Your task to perform on an android device: Open network settings Image 0: 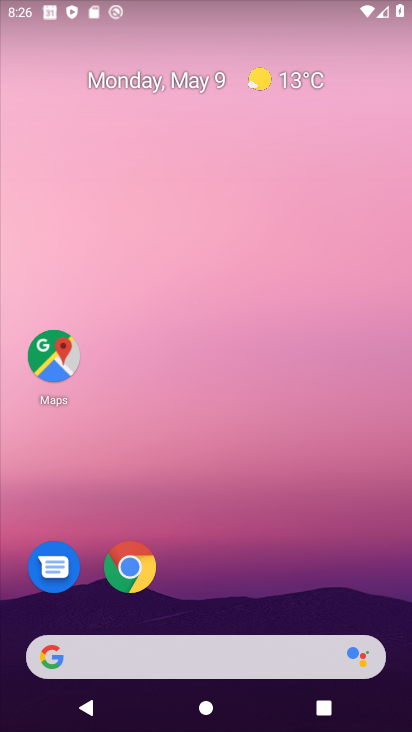
Step 0: drag from (290, 518) to (246, 33)
Your task to perform on an android device: Open network settings Image 1: 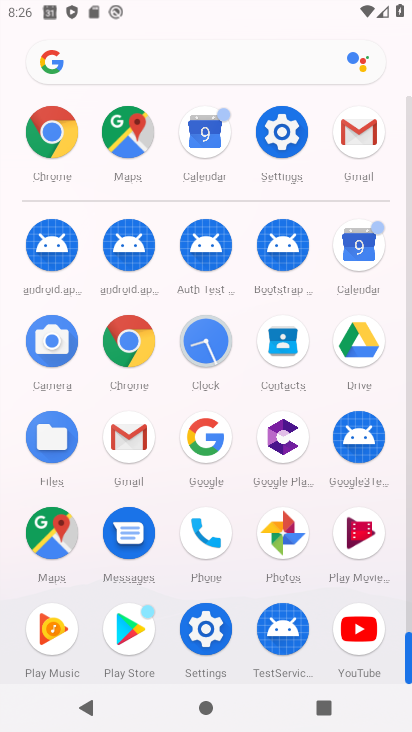
Step 1: click (275, 116)
Your task to perform on an android device: Open network settings Image 2: 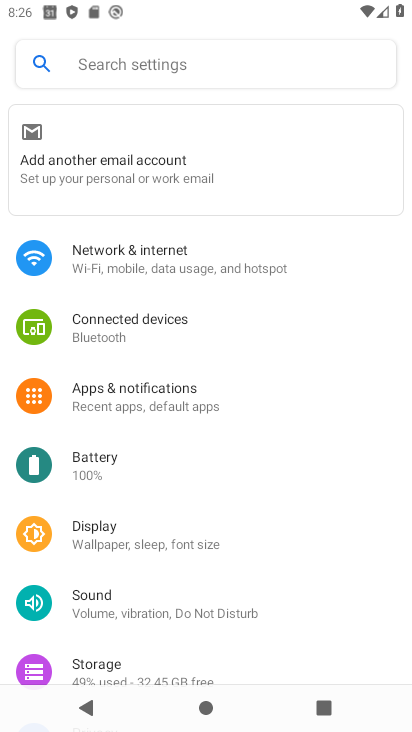
Step 2: click (159, 253)
Your task to perform on an android device: Open network settings Image 3: 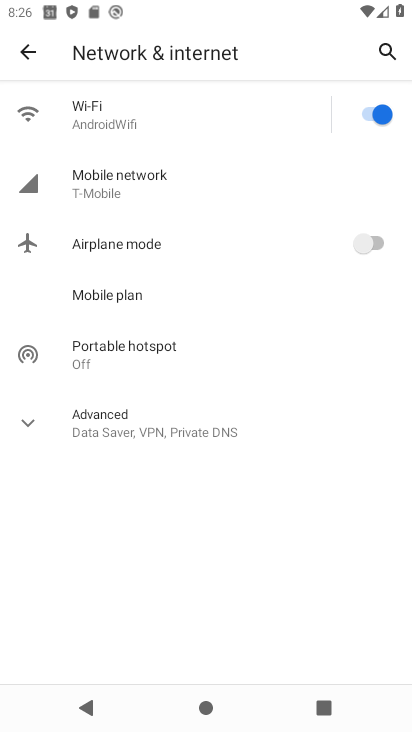
Step 3: task complete